Your task to perform on an android device: Set an alarm for 10am Image 0: 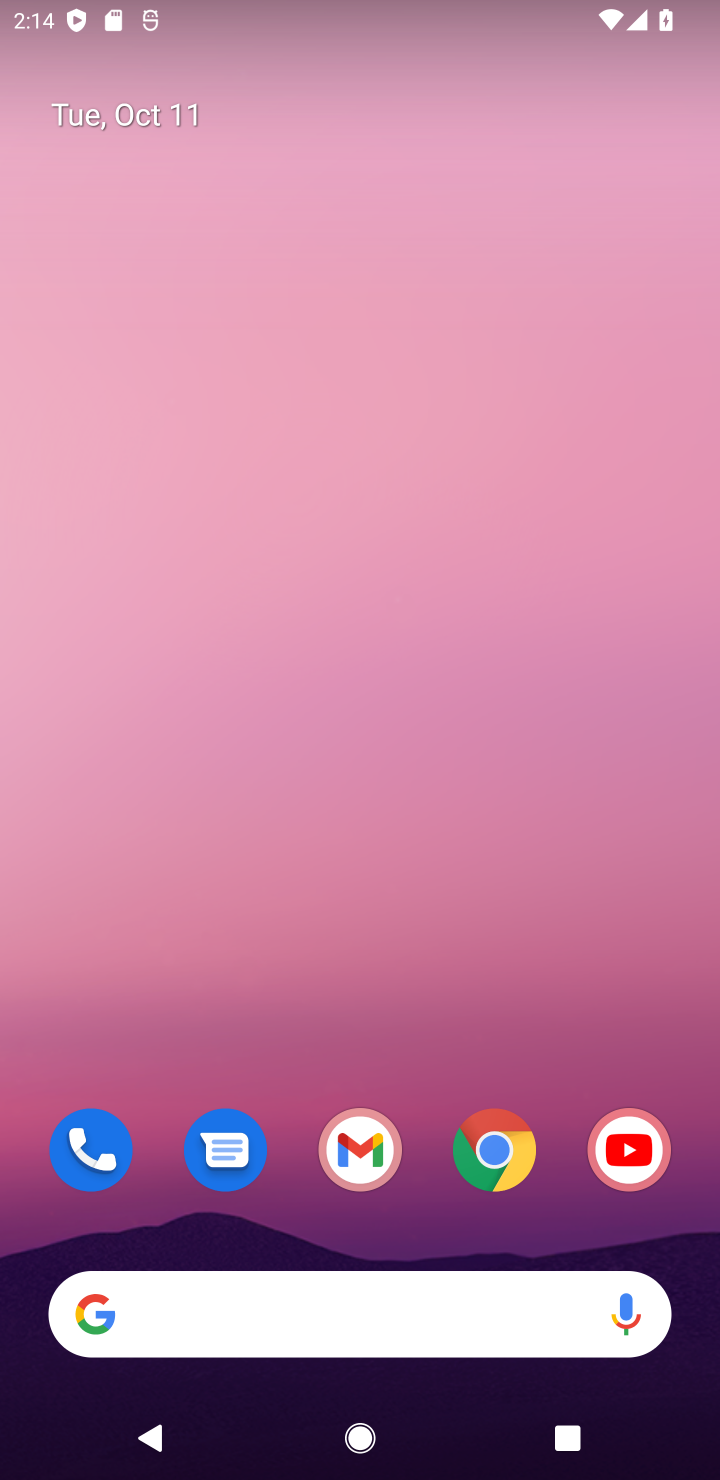
Step 0: drag from (291, 1238) to (366, 208)
Your task to perform on an android device: Set an alarm for 10am Image 1: 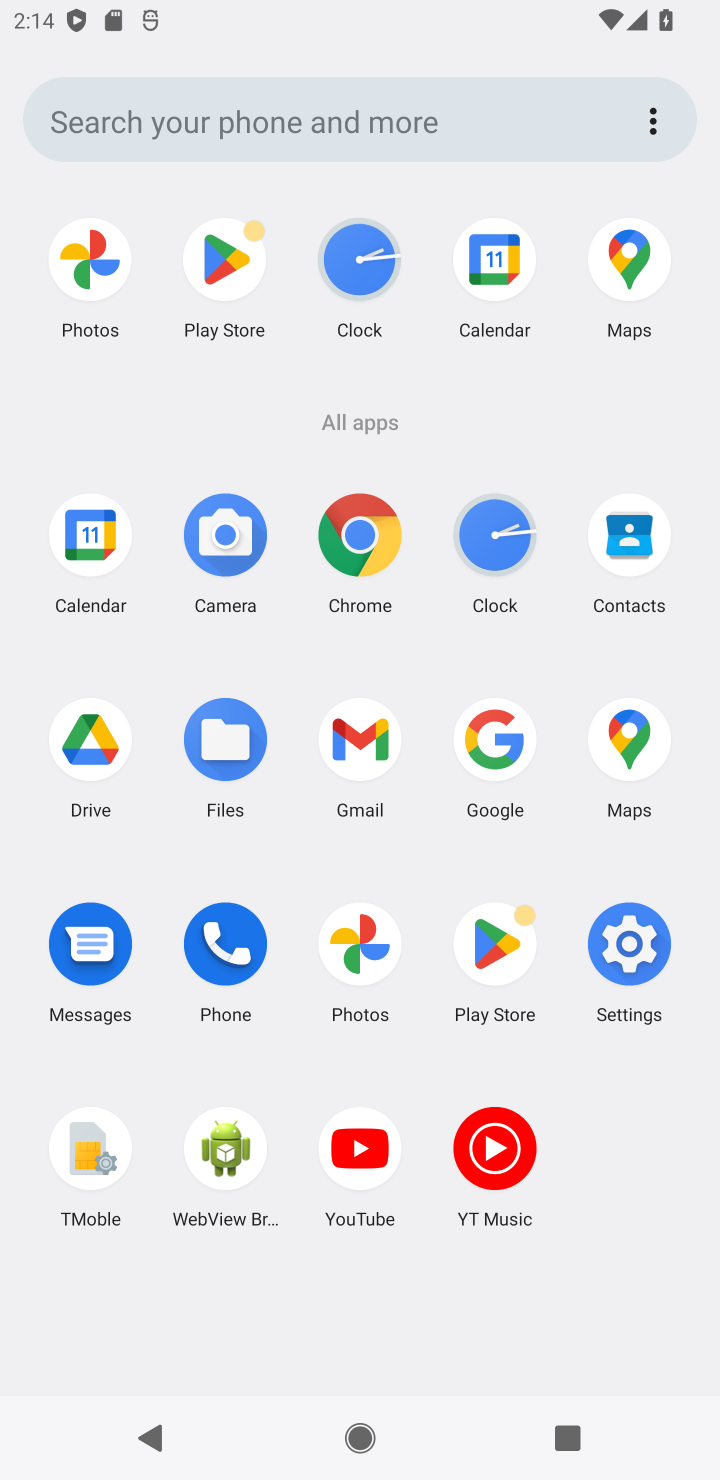
Step 1: click (505, 530)
Your task to perform on an android device: Set an alarm for 10am Image 2: 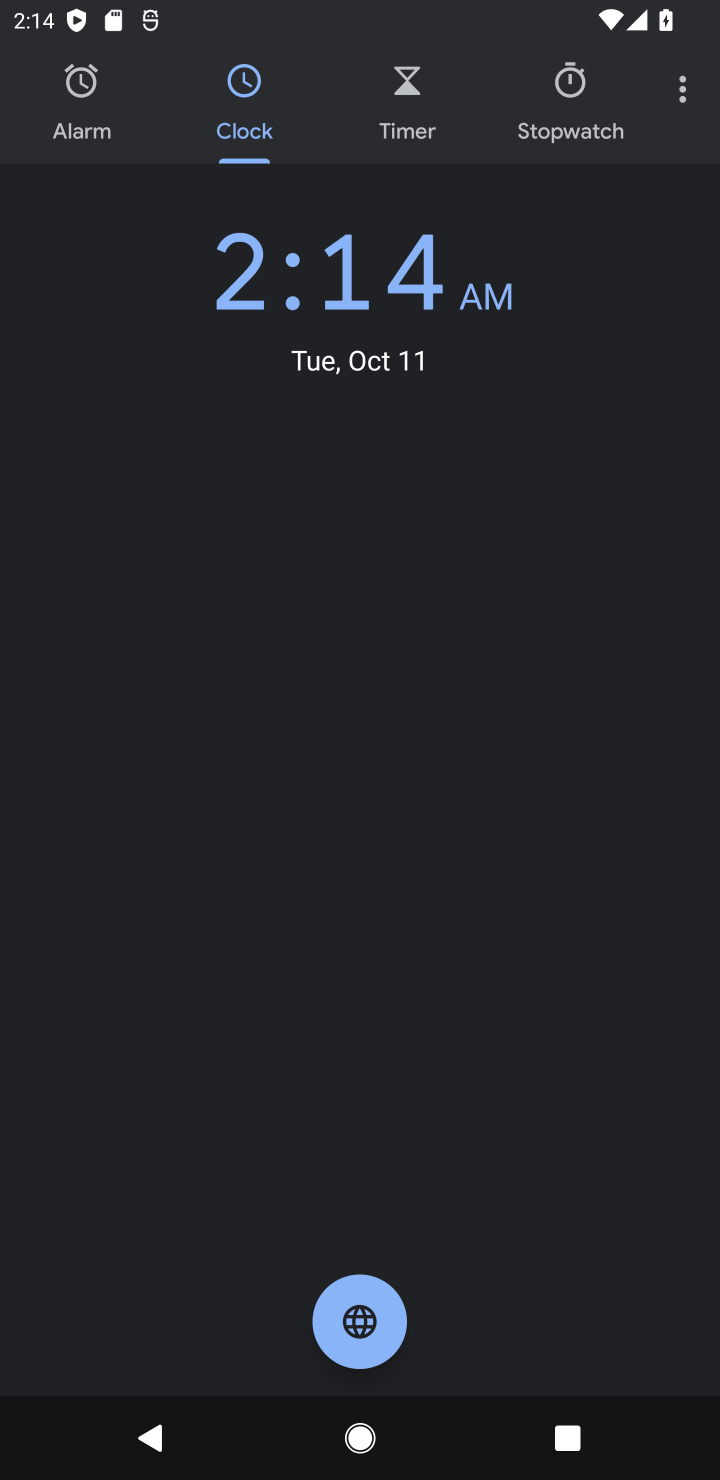
Step 2: click (92, 137)
Your task to perform on an android device: Set an alarm for 10am Image 3: 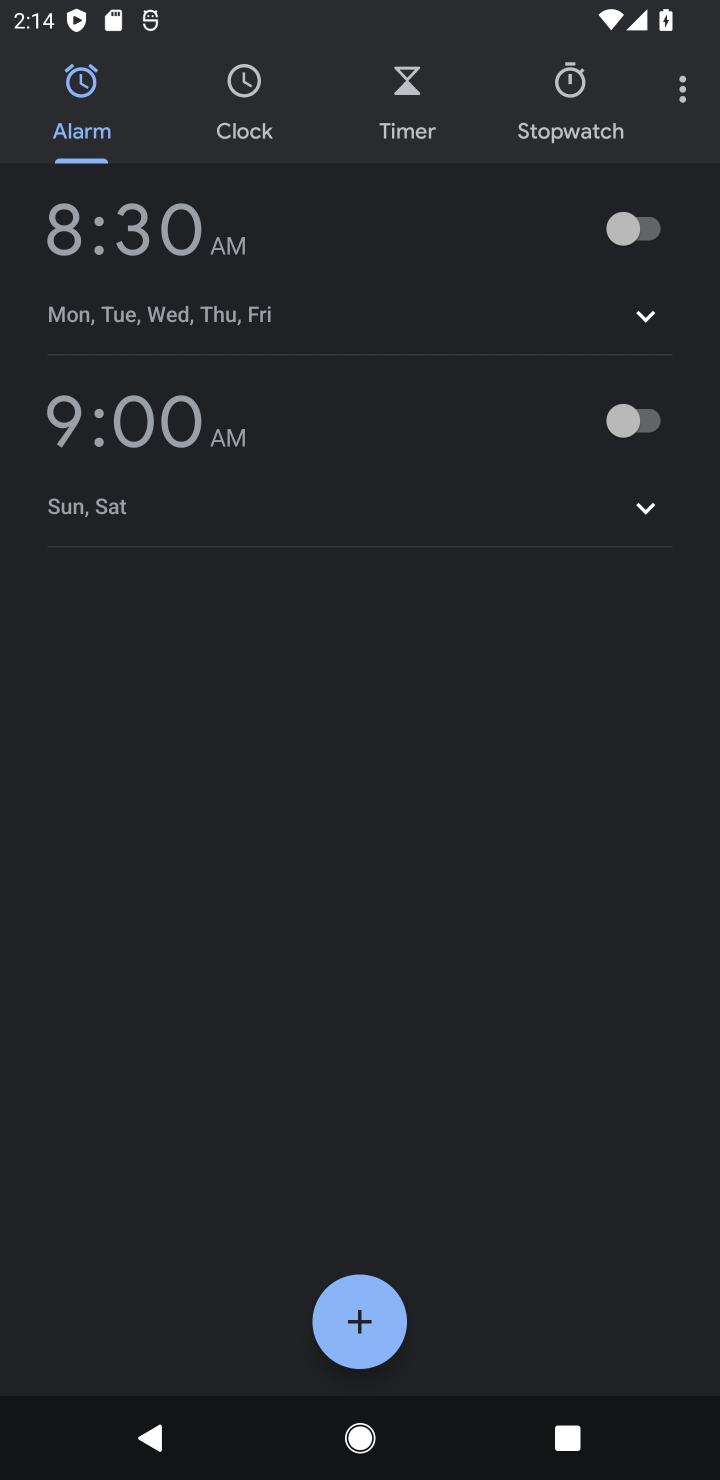
Step 3: click (357, 1311)
Your task to perform on an android device: Set an alarm for 10am Image 4: 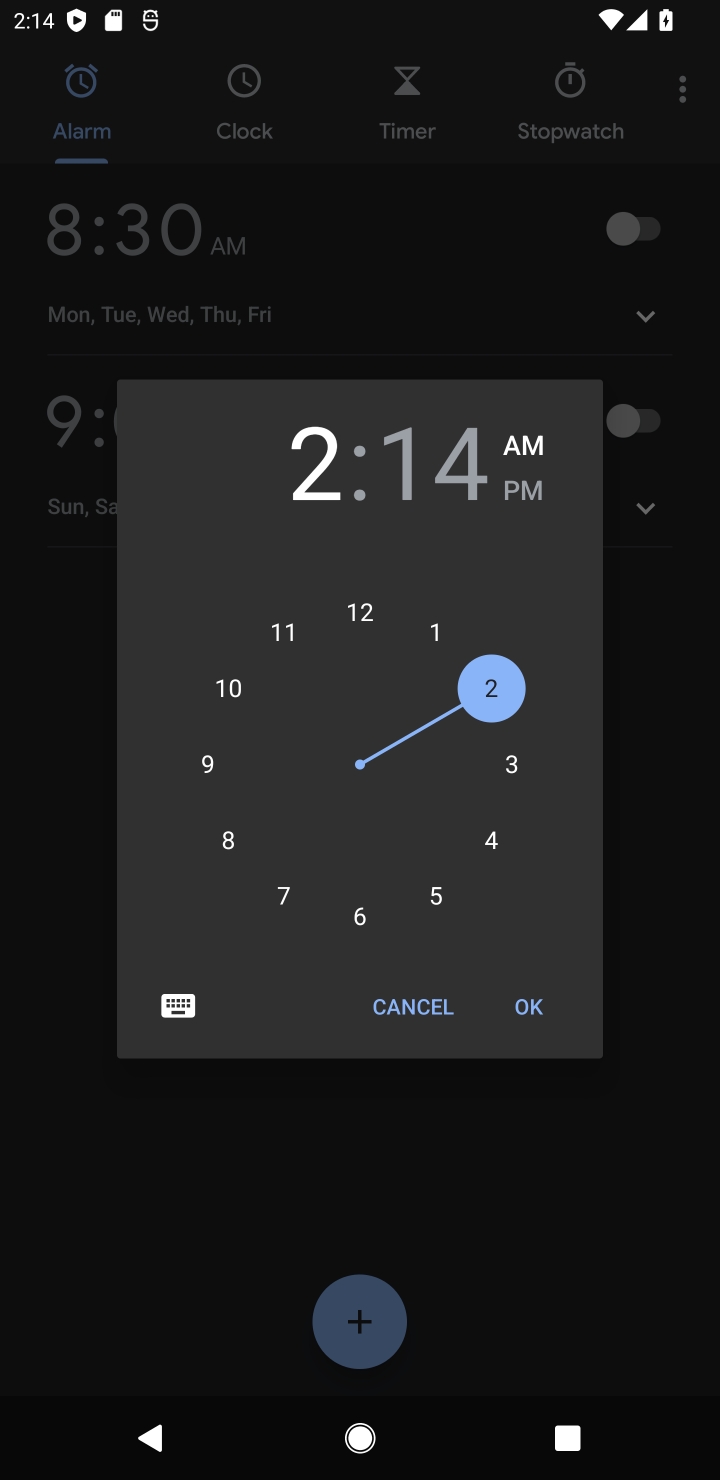
Step 4: click (229, 683)
Your task to perform on an android device: Set an alarm for 10am Image 5: 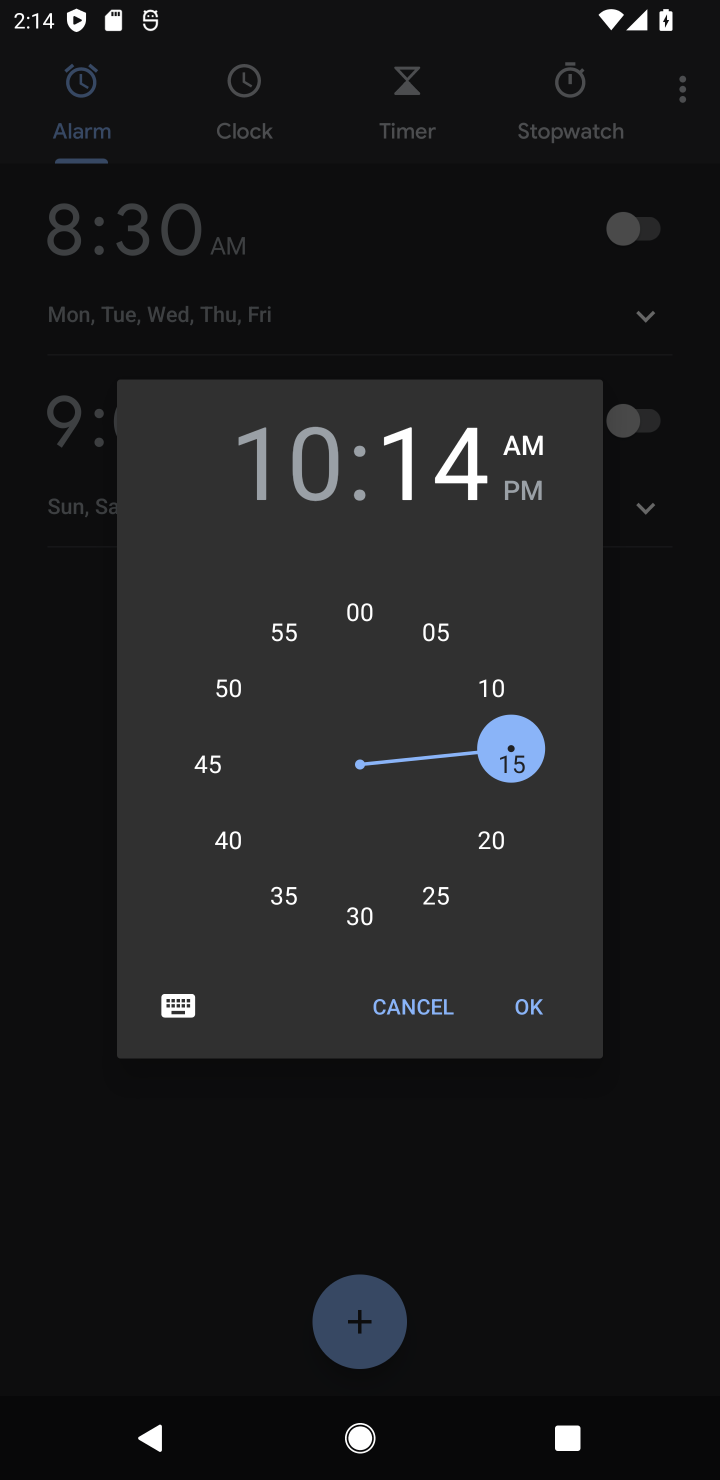
Step 5: click (367, 623)
Your task to perform on an android device: Set an alarm for 10am Image 6: 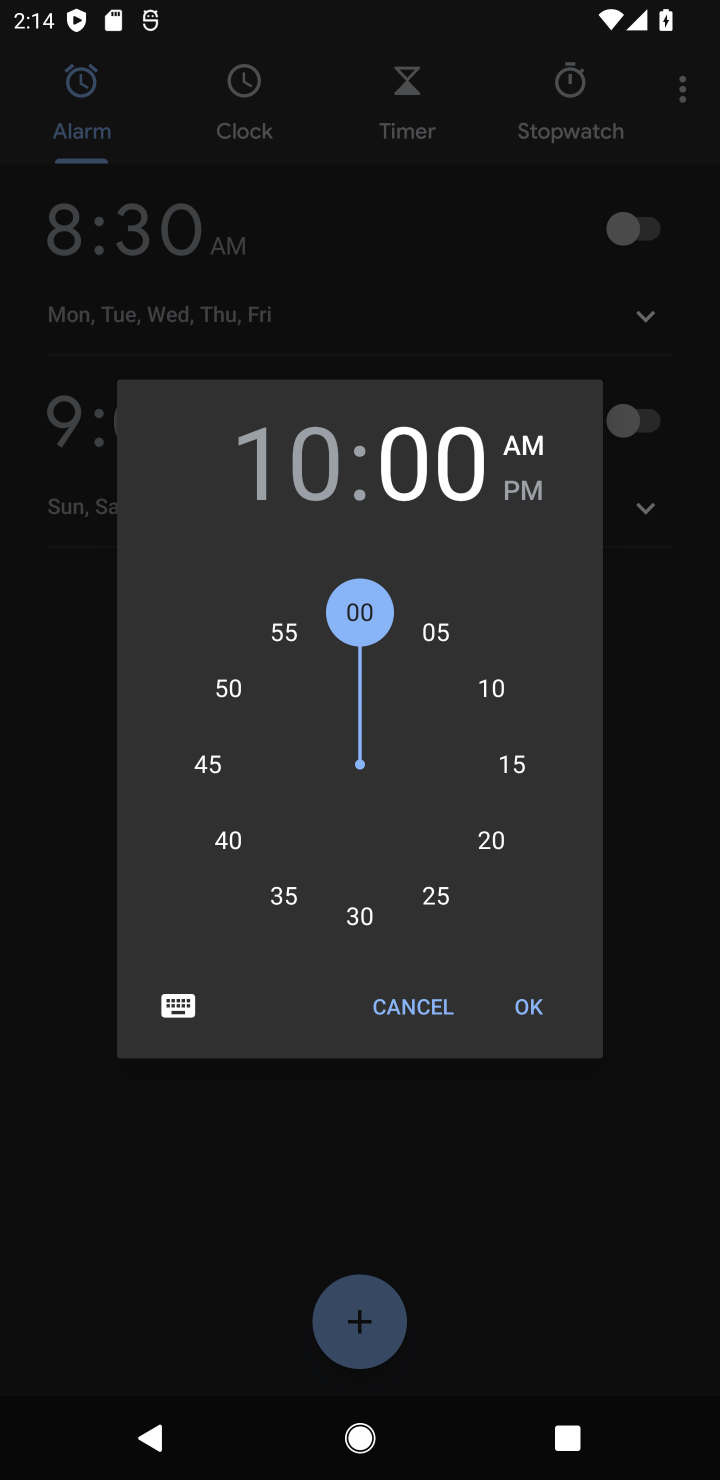
Step 6: click (545, 442)
Your task to perform on an android device: Set an alarm for 10am Image 7: 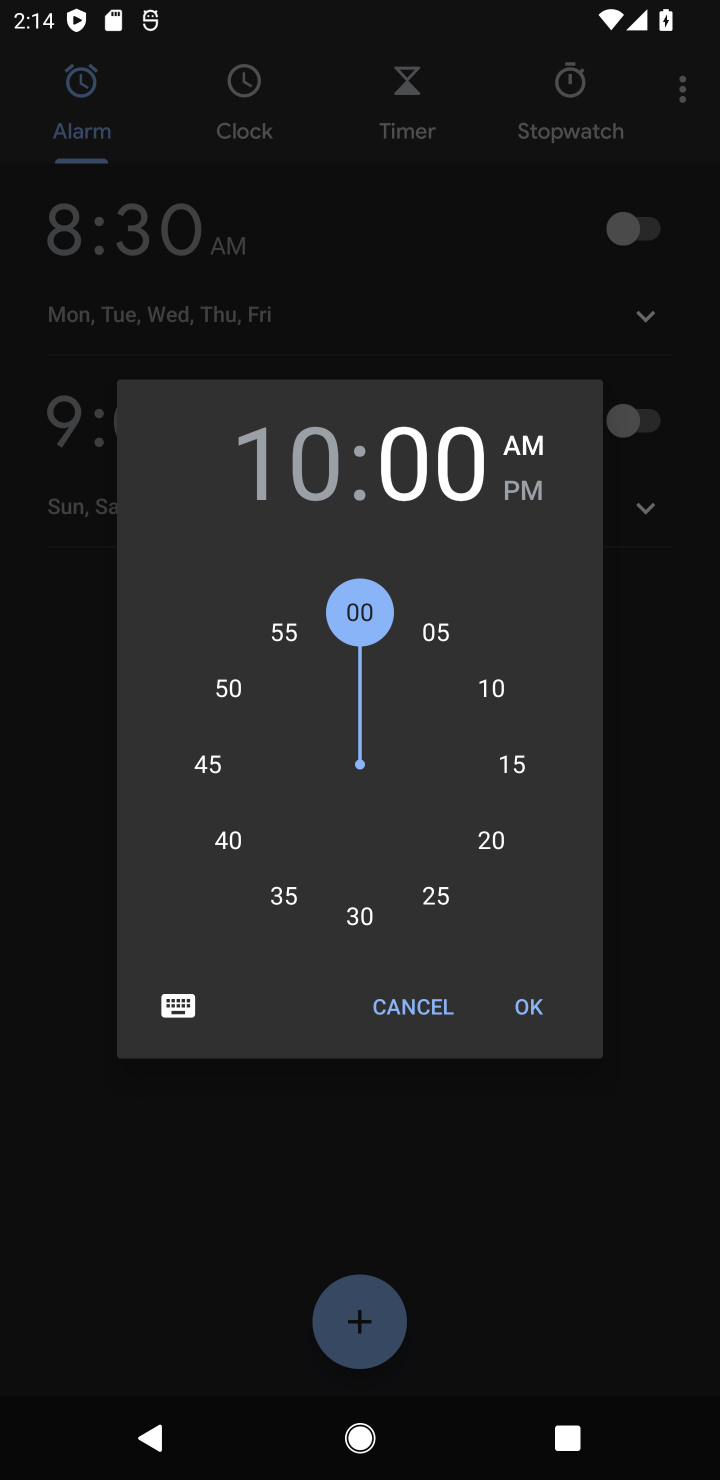
Step 7: click (530, 1018)
Your task to perform on an android device: Set an alarm for 10am Image 8: 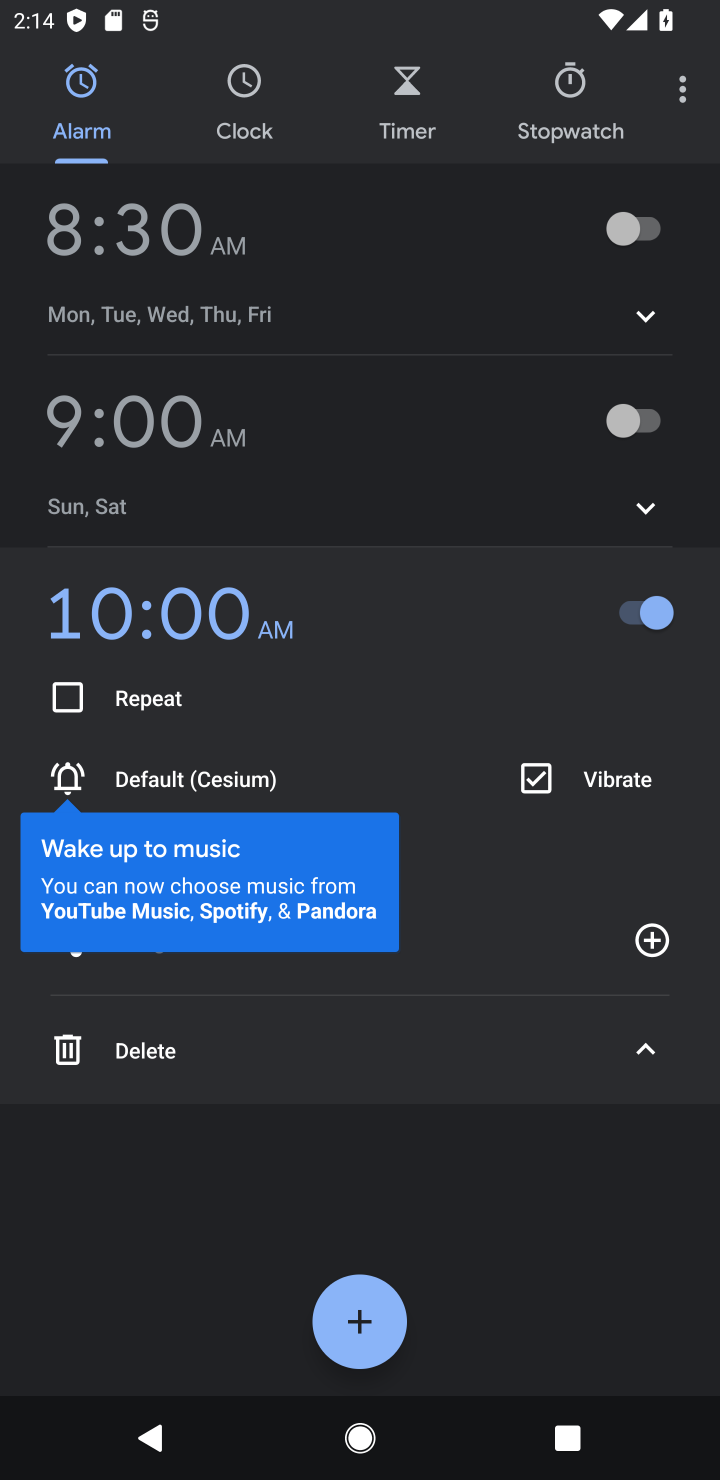
Step 8: task complete